Your task to perform on an android device: Go to sound settings Image 0: 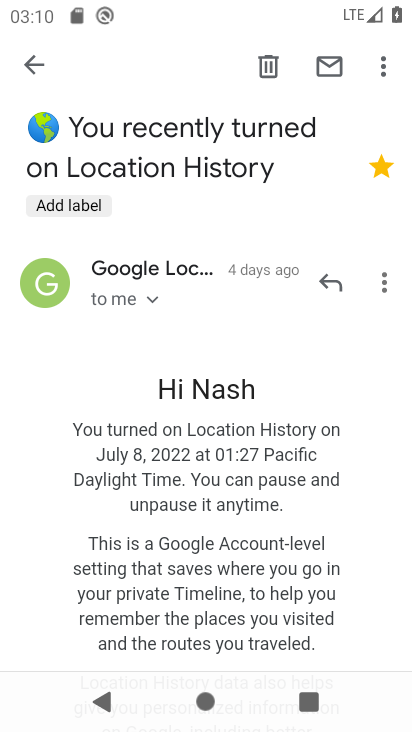
Step 0: press home button
Your task to perform on an android device: Go to sound settings Image 1: 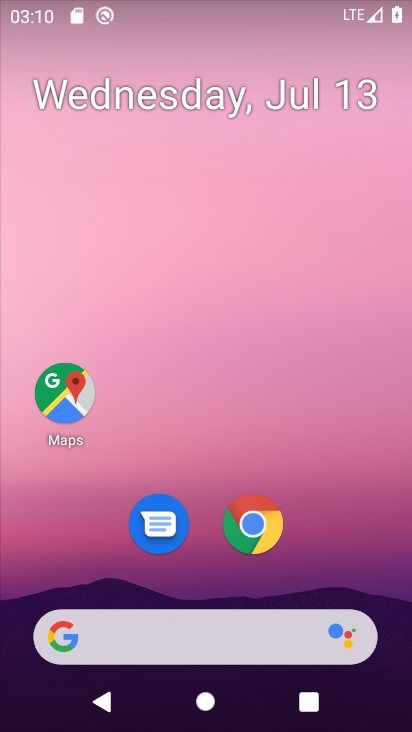
Step 1: drag from (325, 521) to (261, 36)
Your task to perform on an android device: Go to sound settings Image 2: 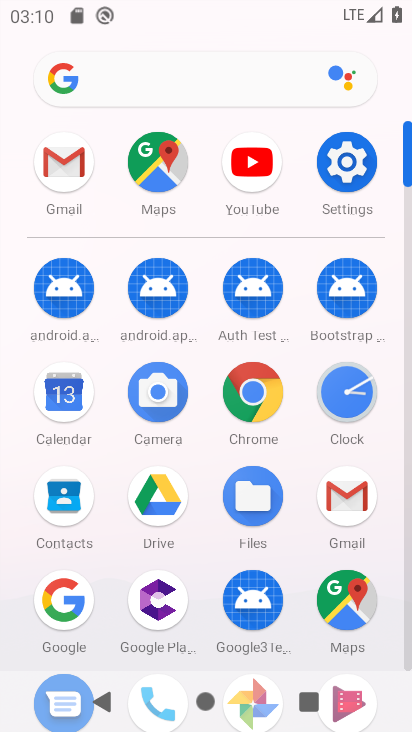
Step 2: click (341, 156)
Your task to perform on an android device: Go to sound settings Image 3: 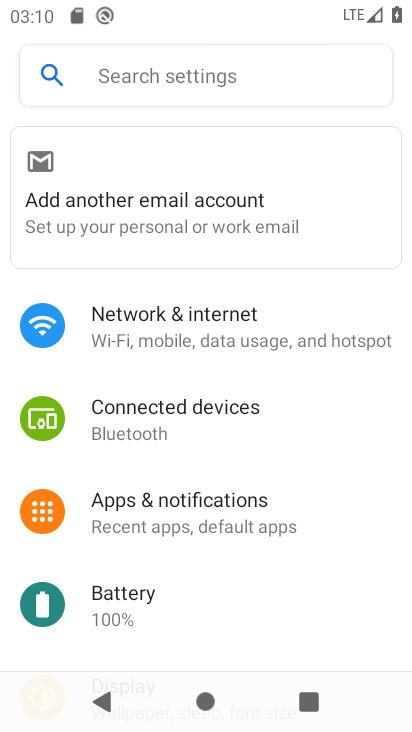
Step 3: drag from (280, 573) to (275, 39)
Your task to perform on an android device: Go to sound settings Image 4: 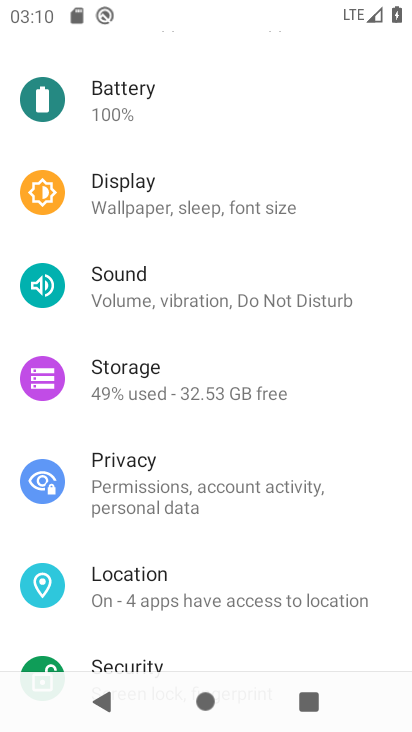
Step 4: click (232, 289)
Your task to perform on an android device: Go to sound settings Image 5: 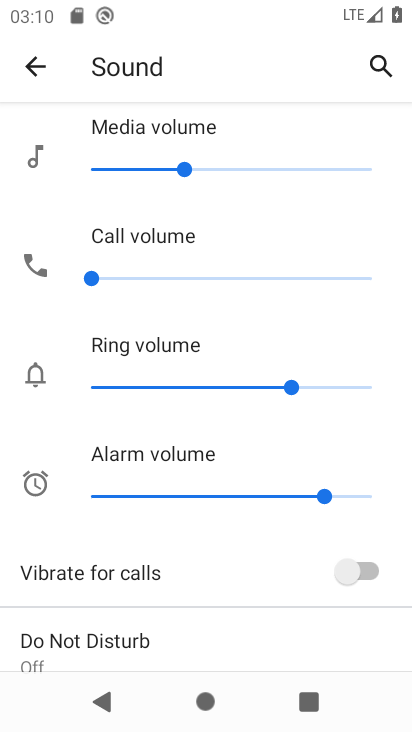
Step 5: task complete